Your task to perform on an android device: open wifi settings Image 0: 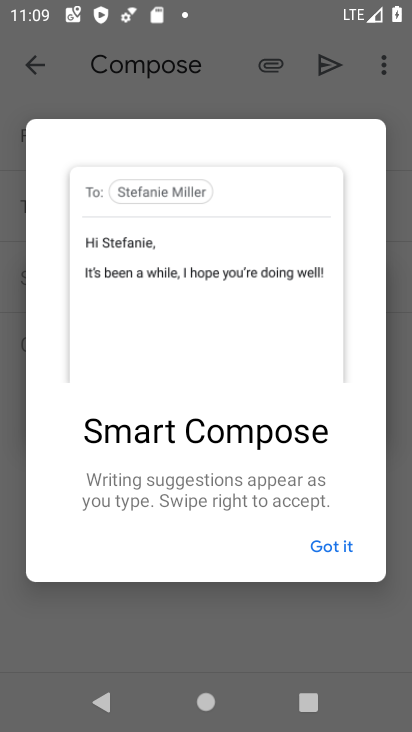
Step 0: press home button
Your task to perform on an android device: open wifi settings Image 1: 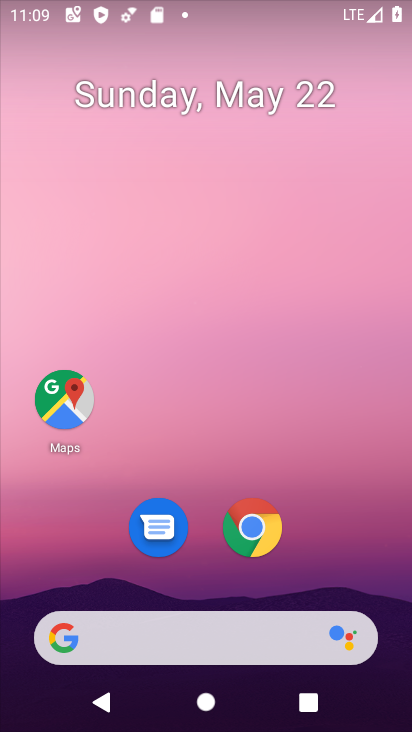
Step 1: drag from (351, 535) to (306, 115)
Your task to perform on an android device: open wifi settings Image 2: 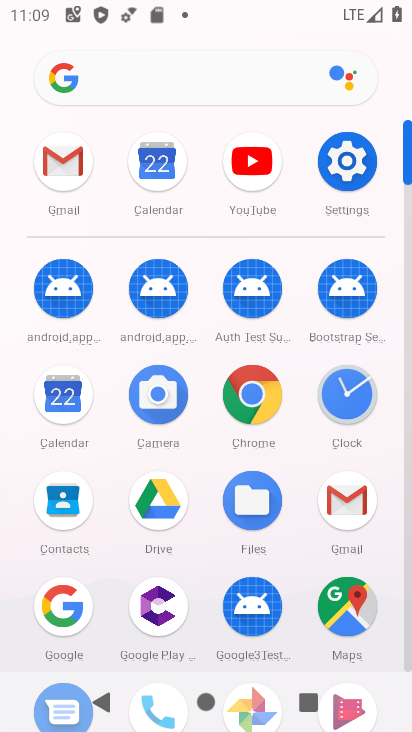
Step 2: click (343, 212)
Your task to perform on an android device: open wifi settings Image 3: 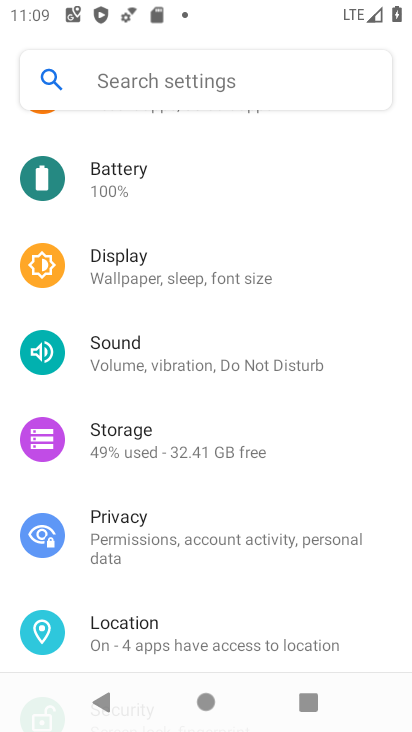
Step 3: drag from (215, 238) to (232, 348)
Your task to perform on an android device: open wifi settings Image 4: 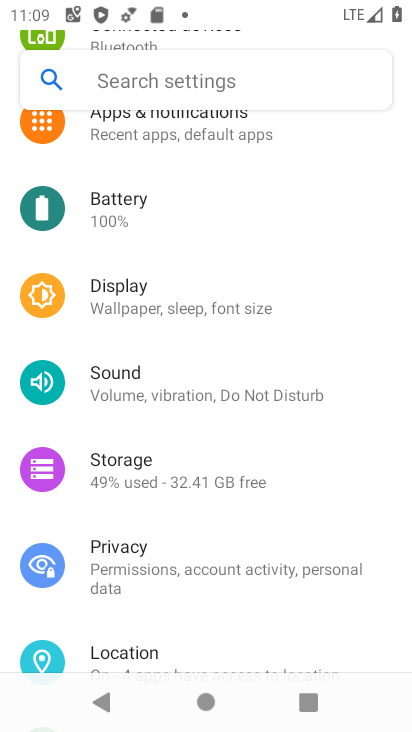
Step 4: drag from (228, 149) to (255, 284)
Your task to perform on an android device: open wifi settings Image 5: 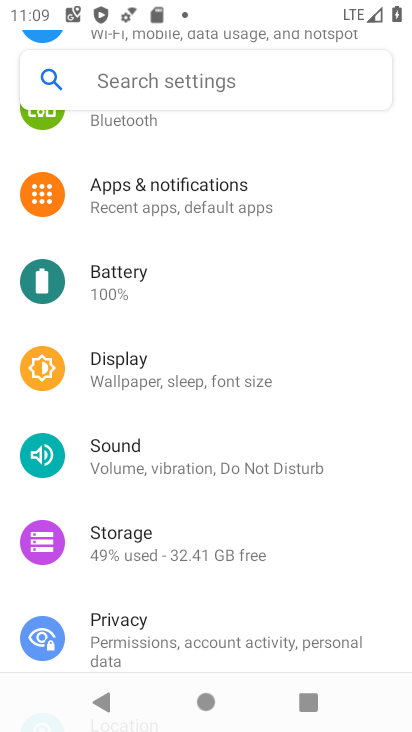
Step 5: drag from (254, 195) to (259, 529)
Your task to perform on an android device: open wifi settings Image 6: 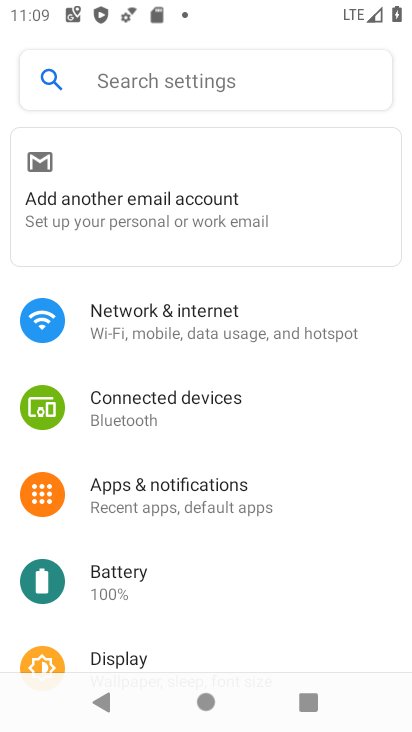
Step 6: click (203, 301)
Your task to perform on an android device: open wifi settings Image 7: 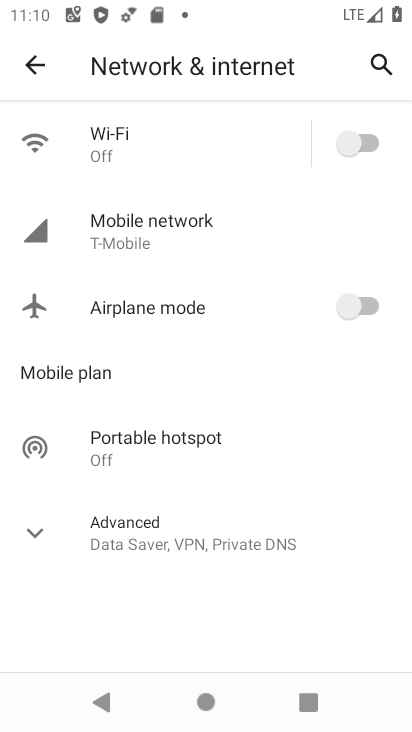
Step 7: click (352, 143)
Your task to perform on an android device: open wifi settings Image 8: 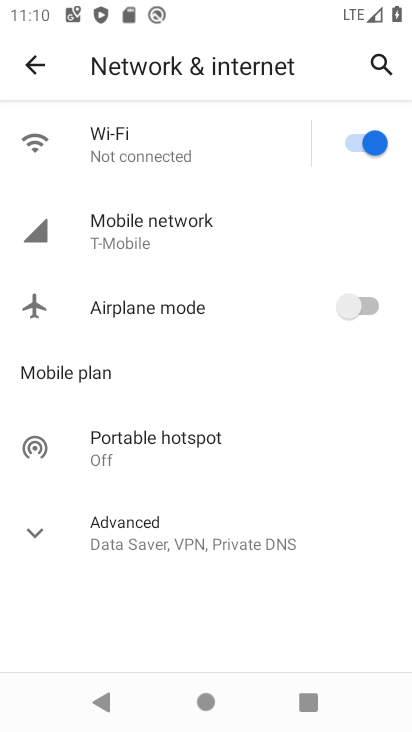
Step 8: task complete